Your task to perform on an android device: Clear all items from cart on newegg.com. Add "usb-a to usb-b" to the cart on newegg.com, then select checkout. Image 0: 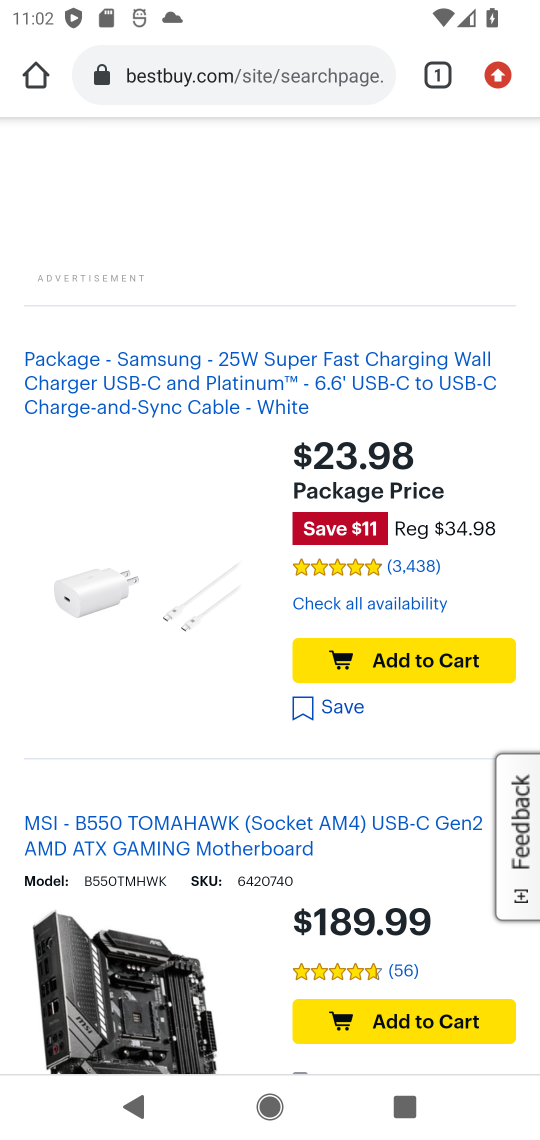
Step 0: click (194, 76)
Your task to perform on an android device: Clear all items from cart on newegg.com. Add "usb-a to usb-b" to the cart on newegg.com, then select checkout. Image 1: 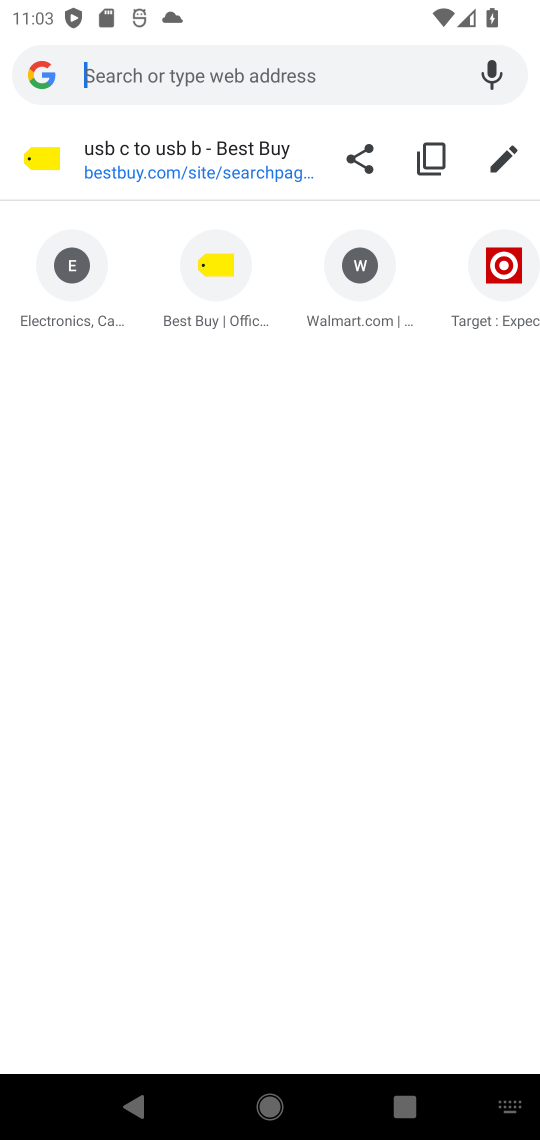
Step 1: type "newegg.com"
Your task to perform on an android device: Clear all items from cart on newegg.com. Add "usb-a to usb-b" to the cart on newegg.com, then select checkout. Image 2: 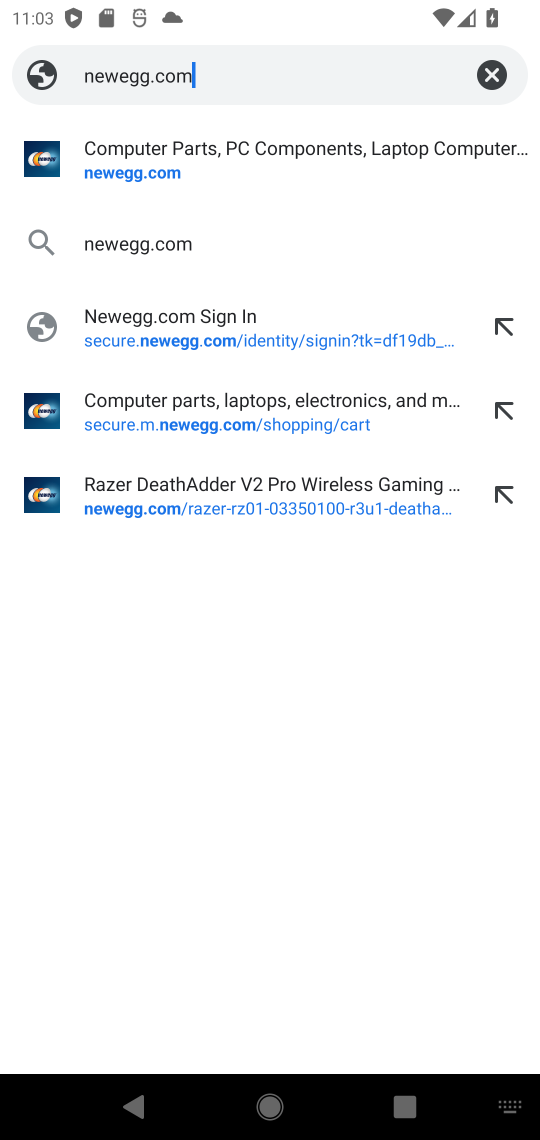
Step 2: click (104, 180)
Your task to perform on an android device: Clear all items from cart on newegg.com. Add "usb-a to usb-b" to the cart on newegg.com, then select checkout. Image 3: 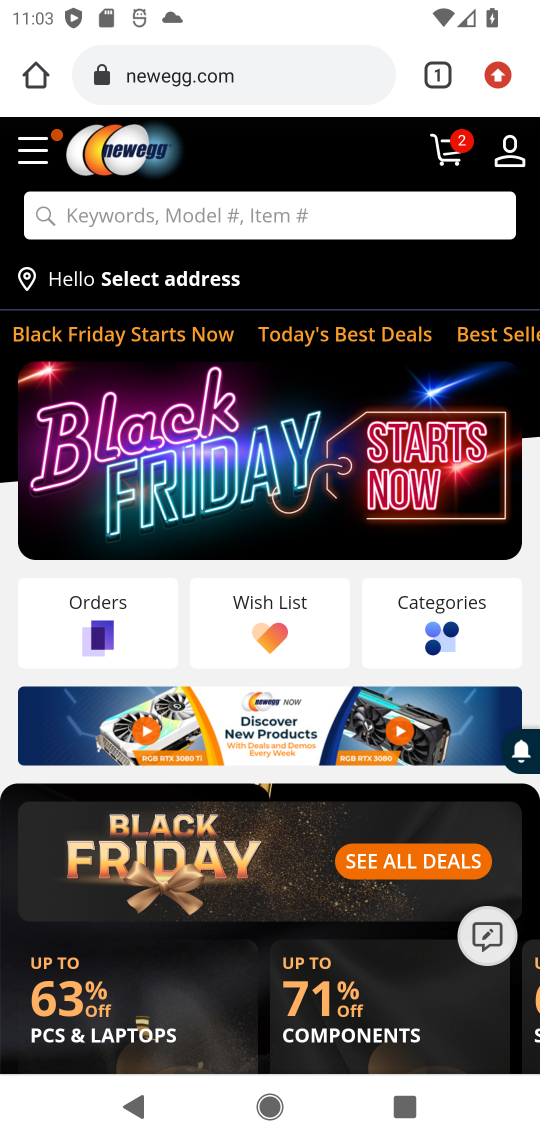
Step 3: click (449, 149)
Your task to perform on an android device: Clear all items from cart on newegg.com. Add "usb-a to usb-b" to the cart on newegg.com, then select checkout. Image 4: 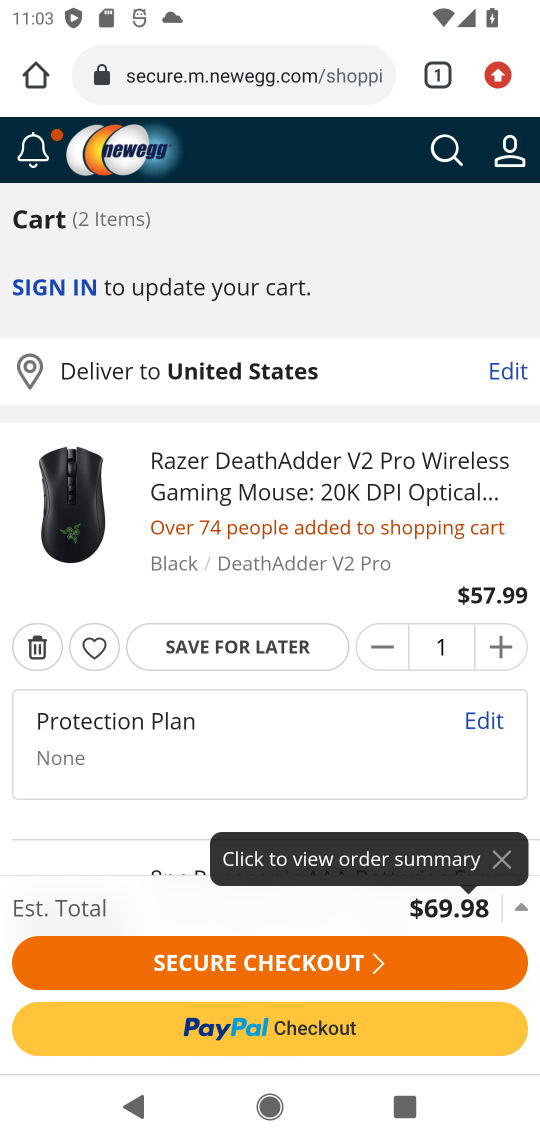
Step 4: click (21, 655)
Your task to perform on an android device: Clear all items from cart on newegg.com. Add "usb-a to usb-b" to the cart on newegg.com, then select checkout. Image 5: 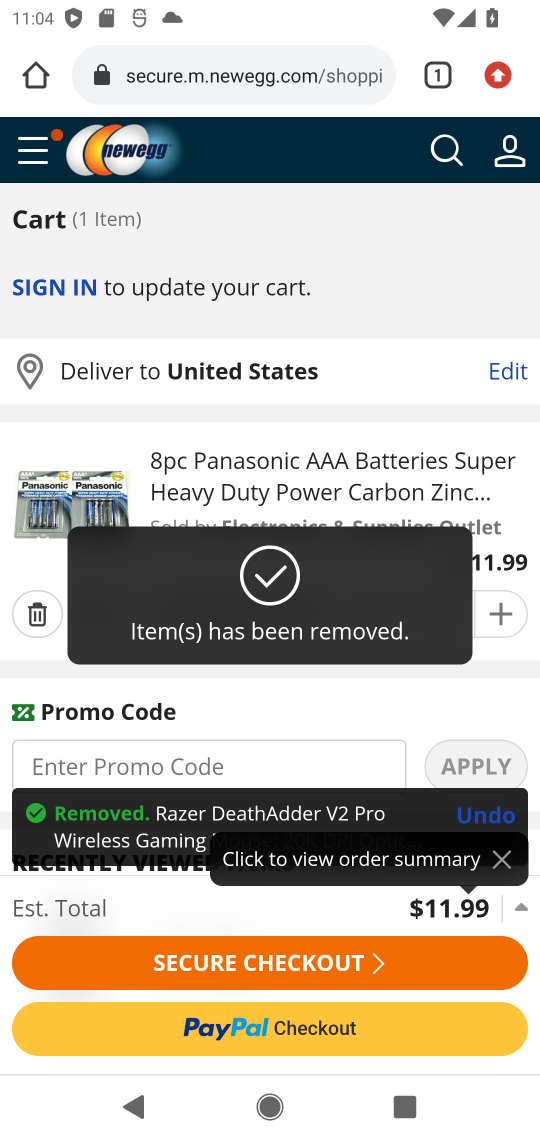
Step 5: click (28, 616)
Your task to perform on an android device: Clear all items from cart on newegg.com. Add "usb-a to usb-b" to the cart on newegg.com, then select checkout. Image 6: 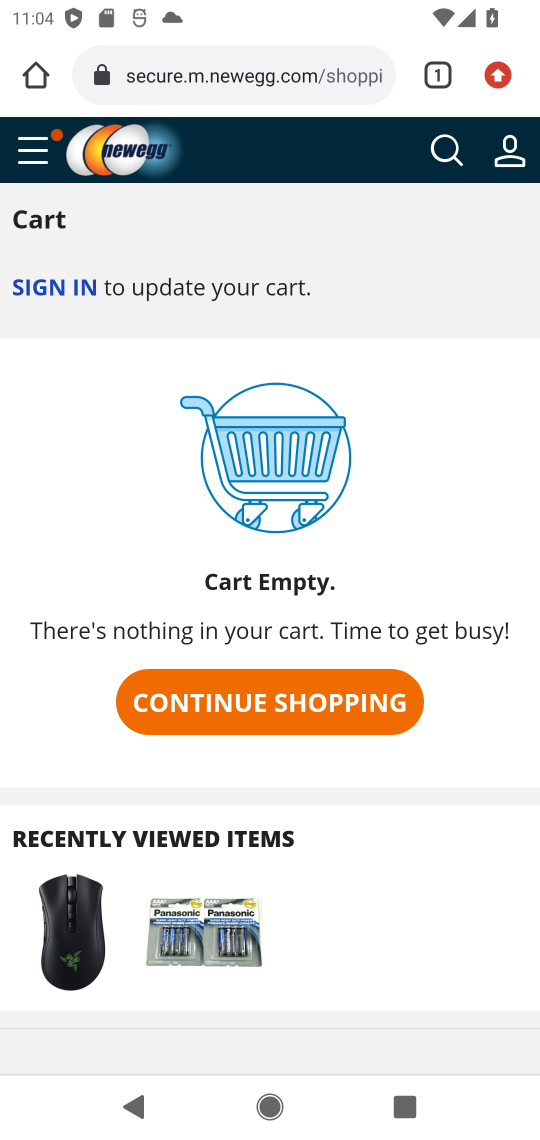
Step 6: click (437, 149)
Your task to perform on an android device: Clear all items from cart on newegg.com. Add "usb-a to usb-b" to the cart on newegg.com, then select checkout. Image 7: 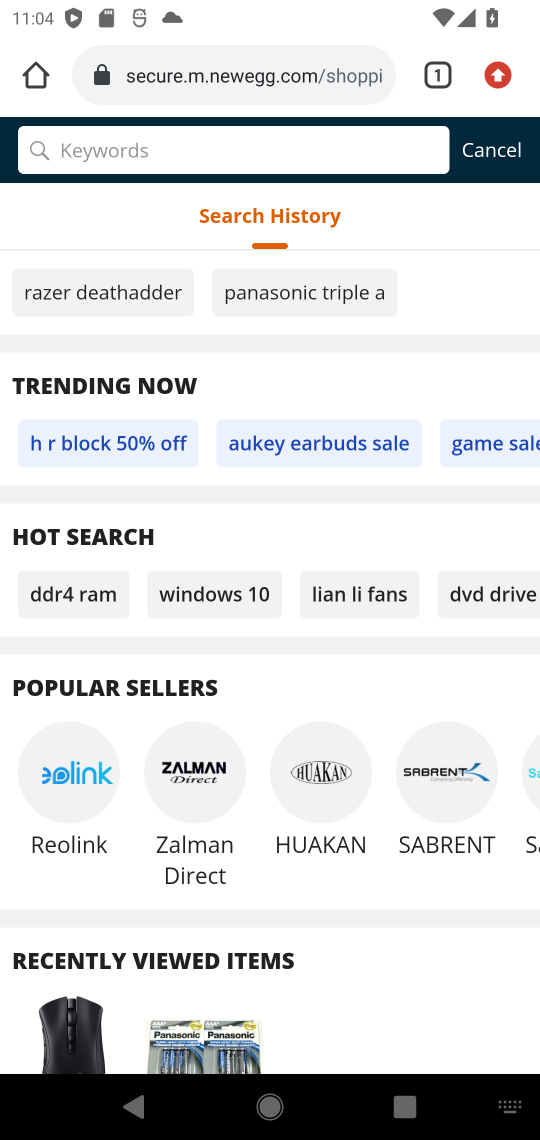
Step 7: type "usb-a to usb-b"
Your task to perform on an android device: Clear all items from cart on newegg.com. Add "usb-a to usb-b" to the cart on newegg.com, then select checkout. Image 8: 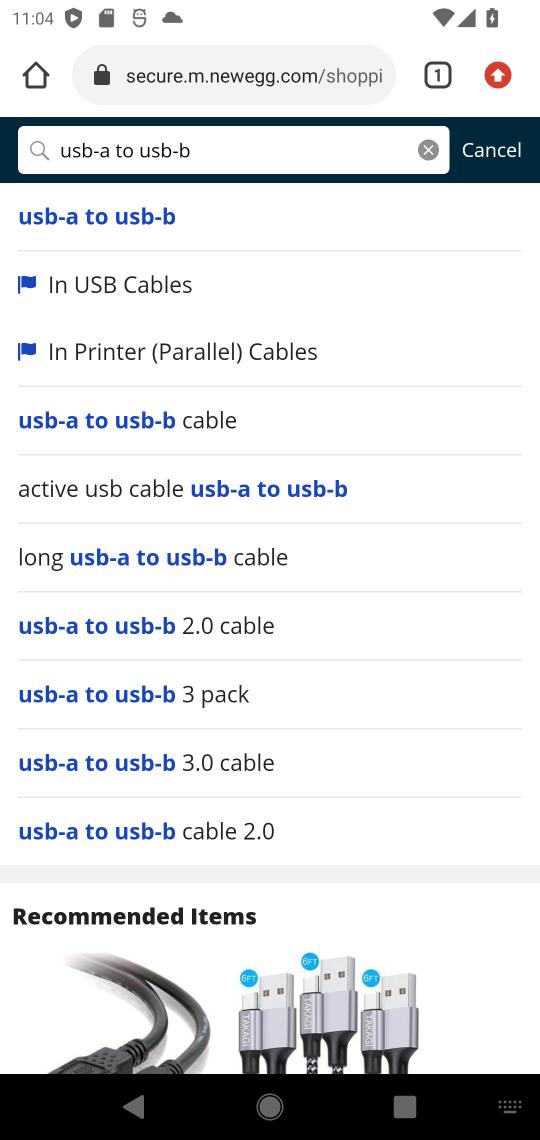
Step 8: click (114, 223)
Your task to perform on an android device: Clear all items from cart on newegg.com. Add "usb-a to usb-b" to the cart on newegg.com, then select checkout. Image 9: 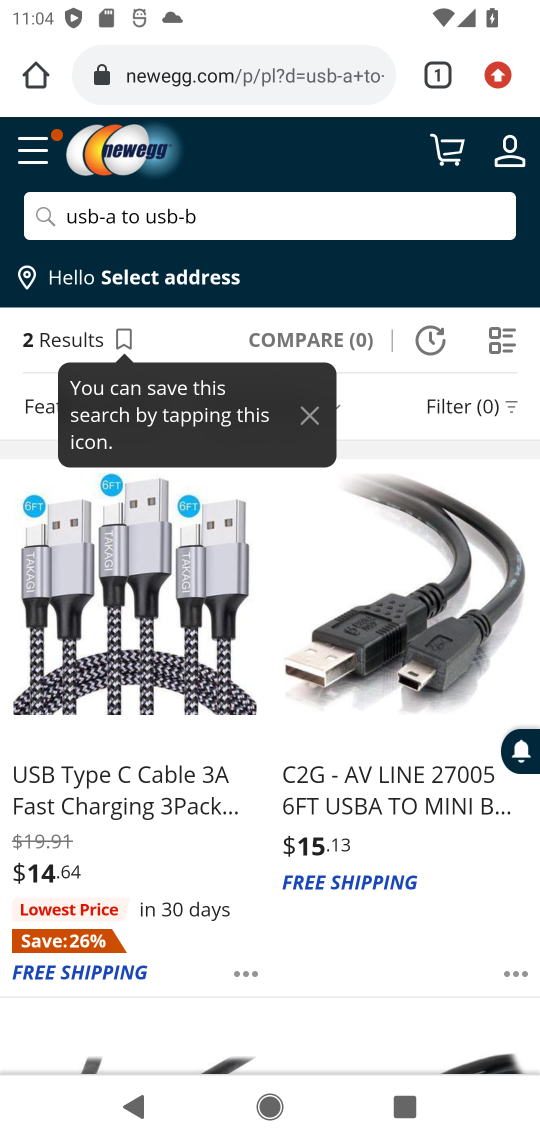
Step 9: drag from (139, 674) to (170, 497)
Your task to perform on an android device: Clear all items from cart on newegg.com. Add "usb-a to usb-b" to the cart on newegg.com, then select checkout. Image 10: 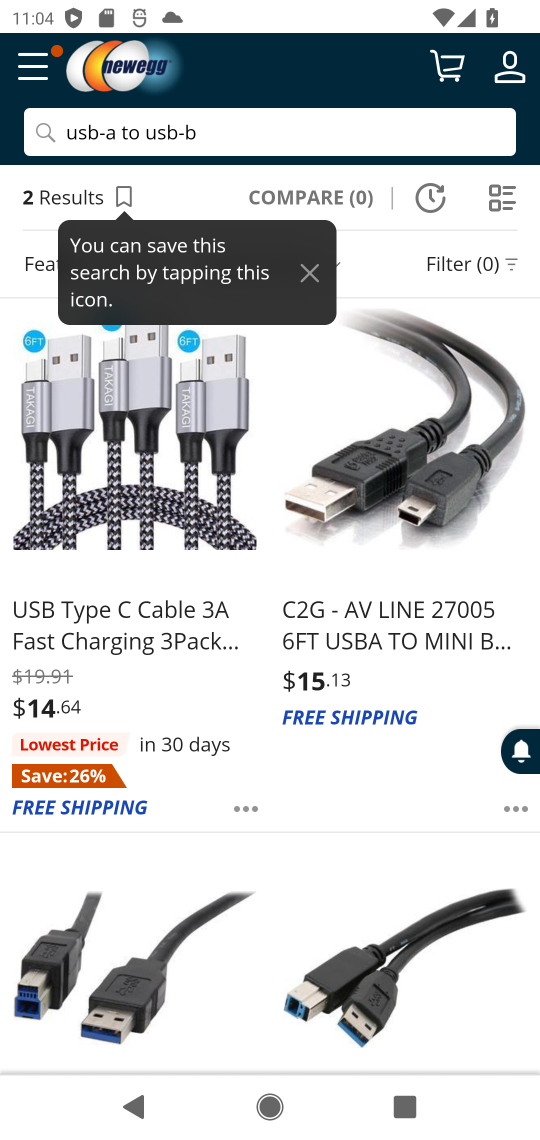
Step 10: drag from (140, 686) to (123, 475)
Your task to perform on an android device: Clear all items from cart on newegg.com. Add "usb-a to usb-b" to the cart on newegg.com, then select checkout. Image 11: 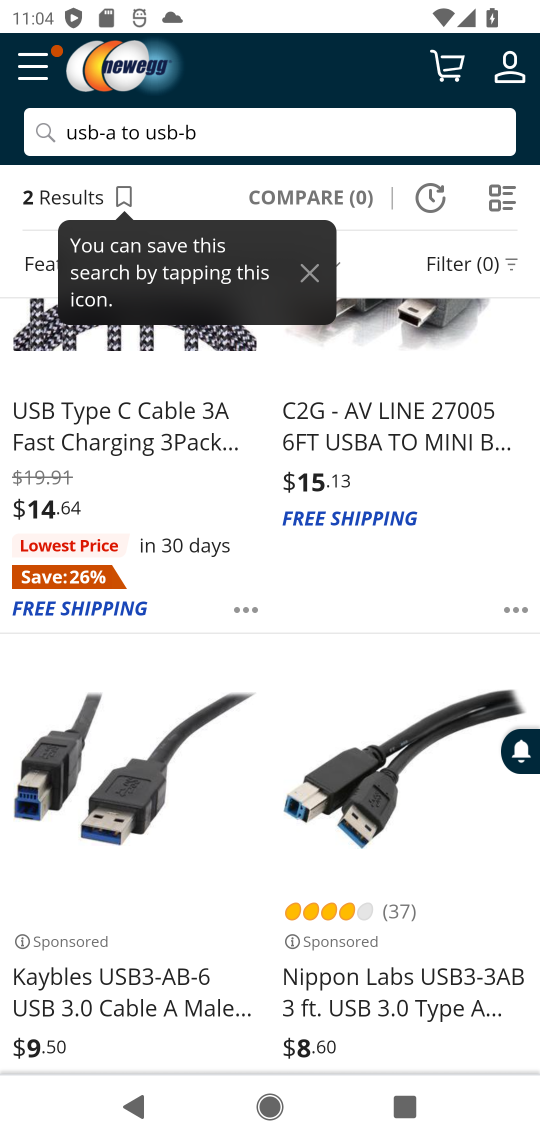
Step 11: drag from (110, 769) to (124, 552)
Your task to perform on an android device: Clear all items from cart on newegg.com. Add "usb-a to usb-b" to the cart on newegg.com, then select checkout. Image 12: 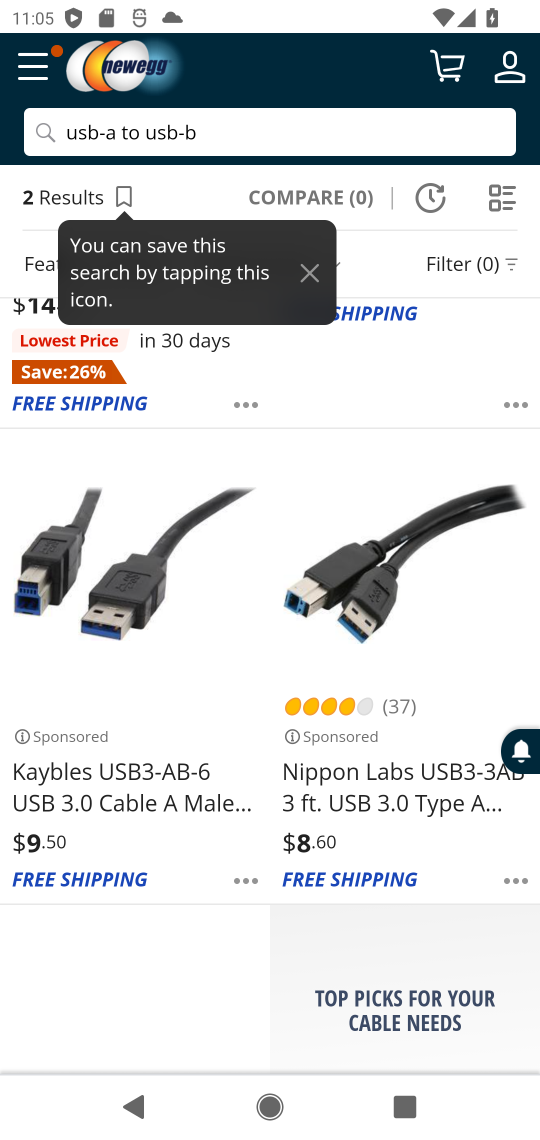
Step 12: drag from (149, 966) to (144, 574)
Your task to perform on an android device: Clear all items from cart on newegg.com. Add "usb-a to usb-b" to the cart on newegg.com, then select checkout. Image 13: 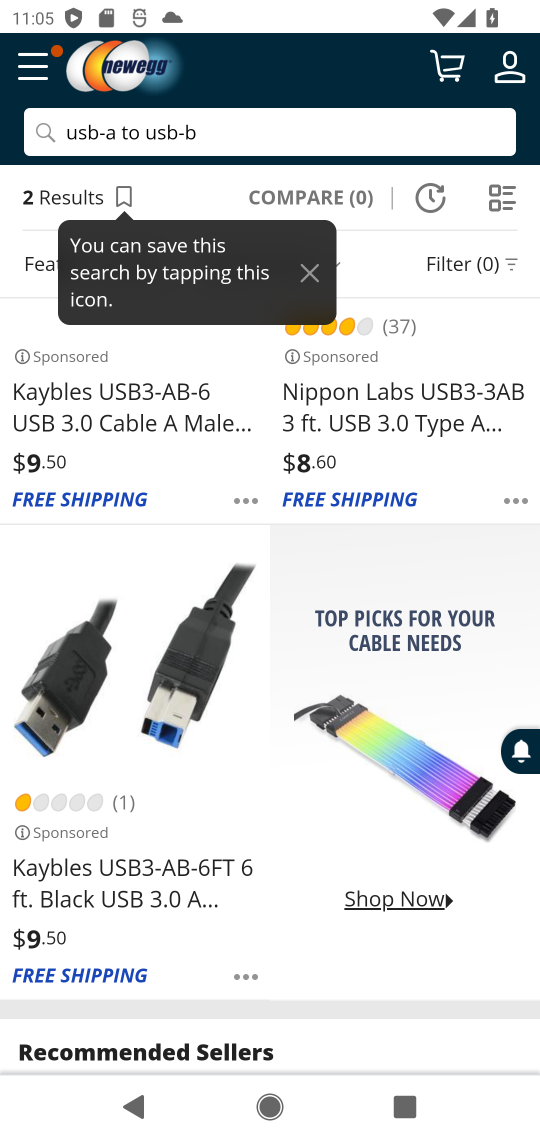
Step 13: drag from (144, 581) to (113, 996)
Your task to perform on an android device: Clear all items from cart on newegg.com. Add "usb-a to usb-b" to the cart on newegg.com, then select checkout. Image 14: 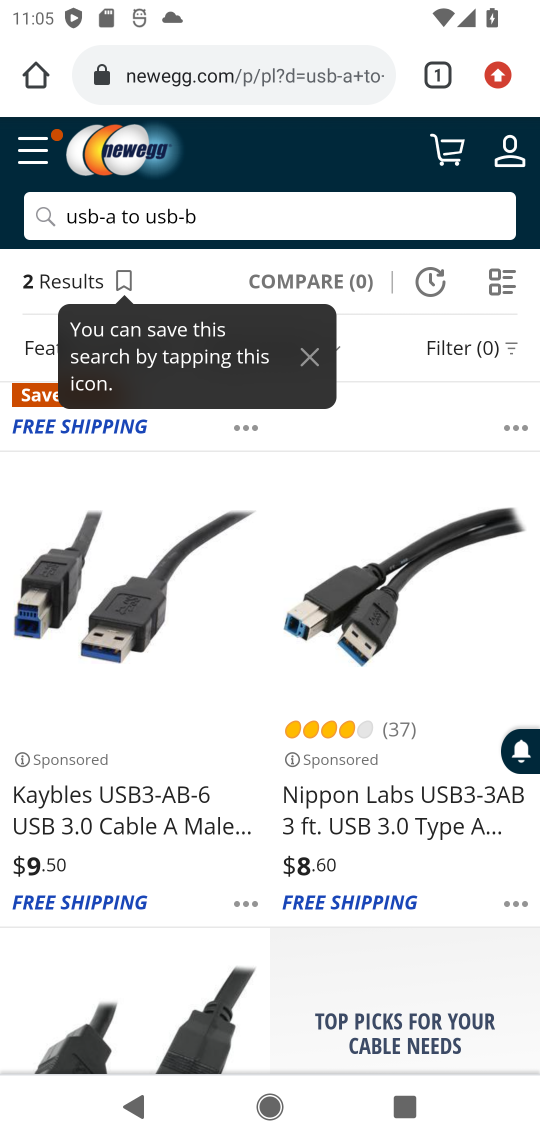
Step 14: drag from (133, 610) to (114, 925)
Your task to perform on an android device: Clear all items from cart on newegg.com. Add "usb-a to usb-b" to the cart on newegg.com, then select checkout. Image 15: 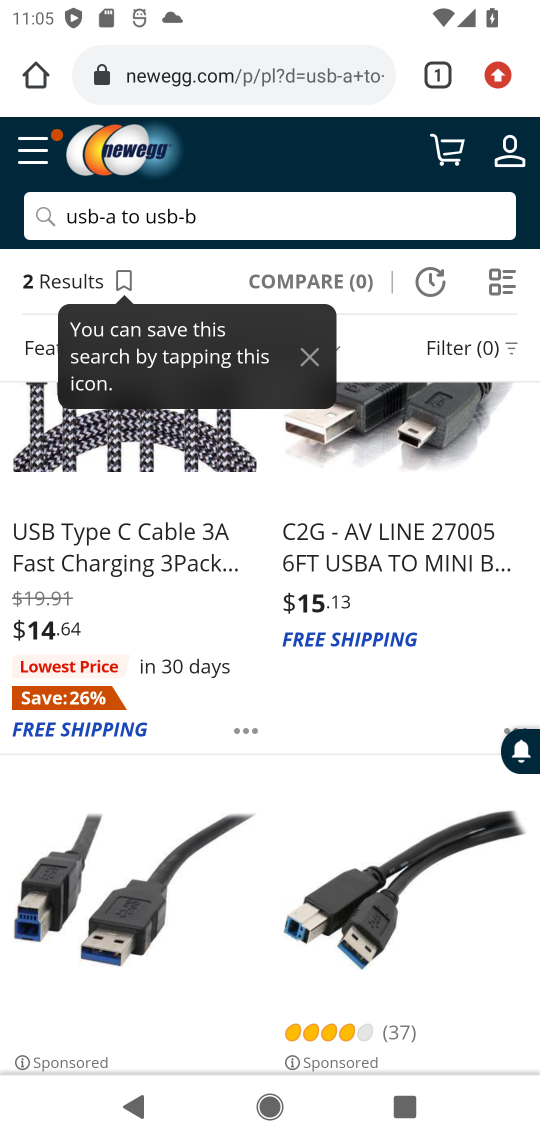
Step 15: click (409, 571)
Your task to perform on an android device: Clear all items from cart on newegg.com. Add "usb-a to usb-b" to the cart on newegg.com, then select checkout. Image 16: 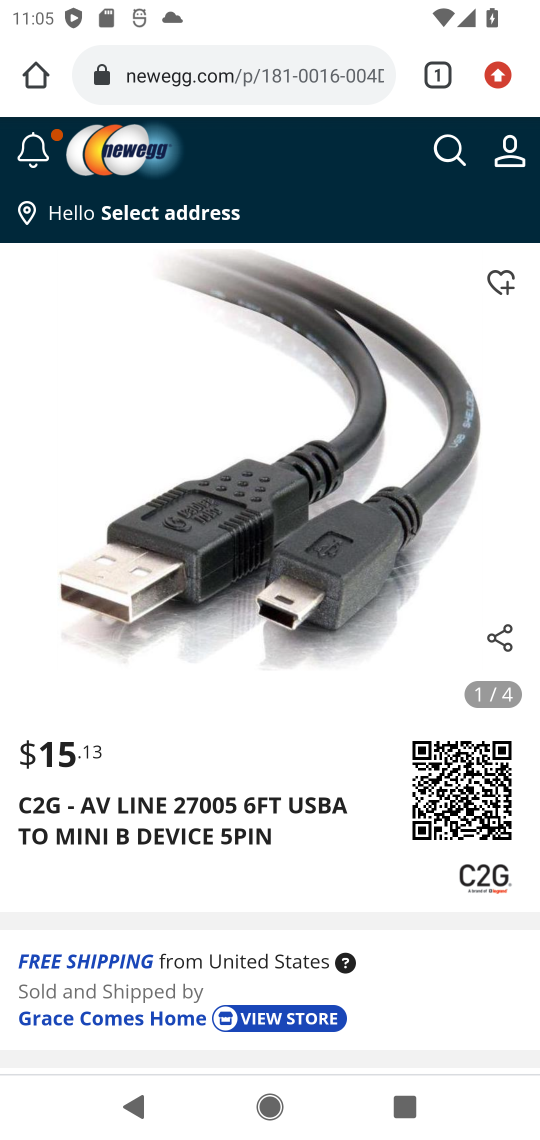
Step 16: drag from (158, 851) to (163, 701)
Your task to perform on an android device: Clear all items from cart on newegg.com. Add "usb-a to usb-b" to the cart on newegg.com, then select checkout. Image 17: 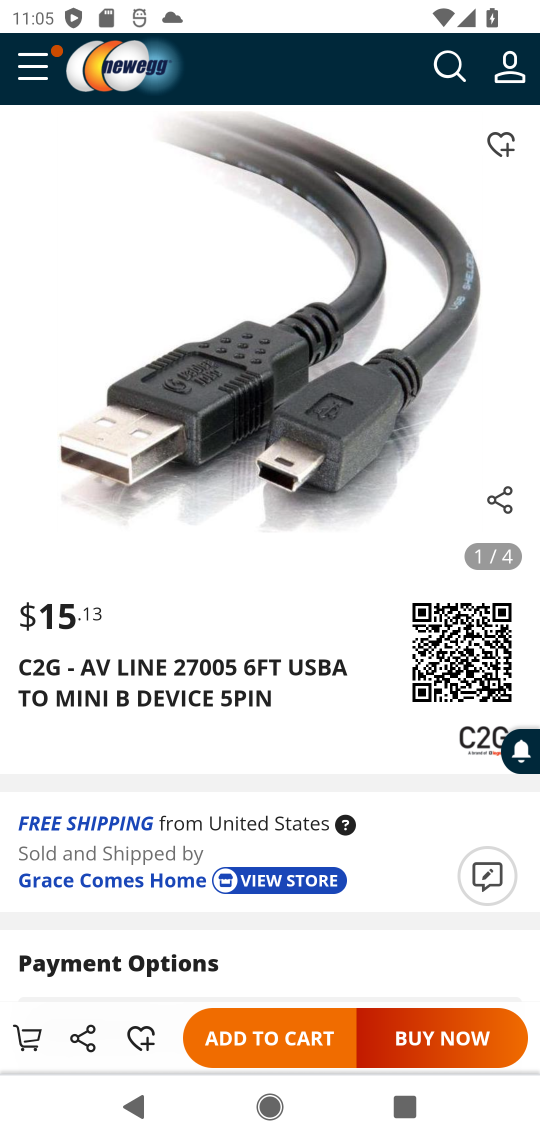
Step 17: drag from (145, 793) to (174, 553)
Your task to perform on an android device: Clear all items from cart on newegg.com. Add "usb-a to usb-b" to the cart on newegg.com, then select checkout. Image 18: 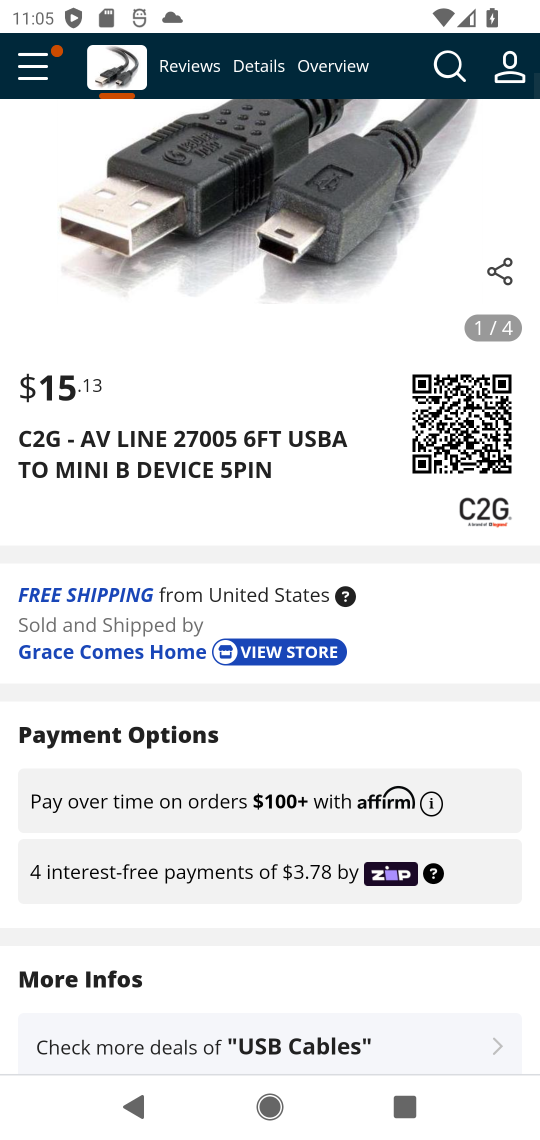
Step 18: click (275, 1030)
Your task to perform on an android device: Clear all items from cart on newegg.com. Add "usb-a to usb-b" to the cart on newegg.com, then select checkout. Image 19: 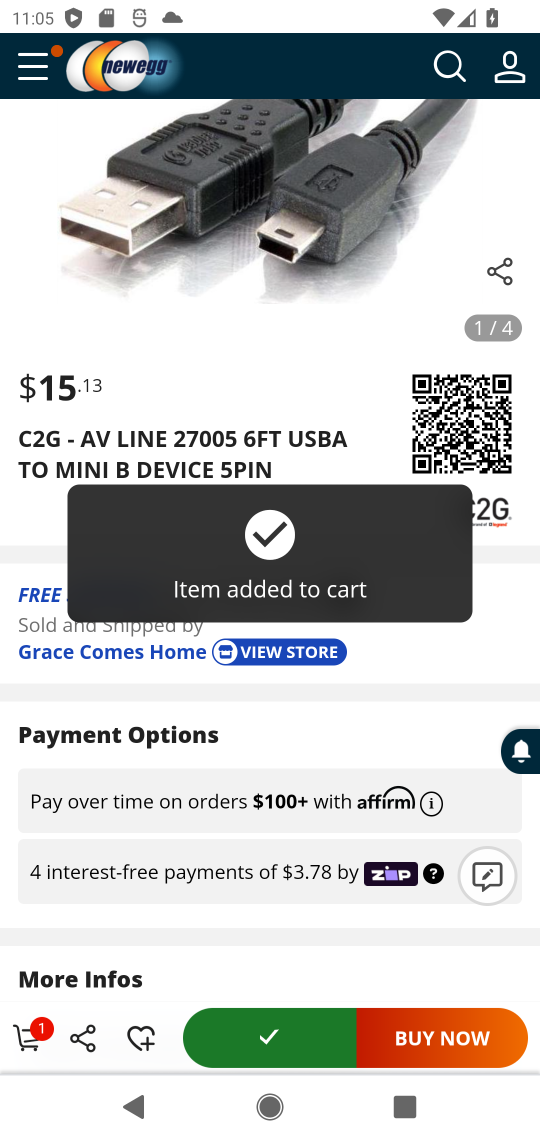
Step 19: click (31, 1034)
Your task to perform on an android device: Clear all items from cart on newegg.com. Add "usb-a to usb-b" to the cart on newegg.com, then select checkout. Image 20: 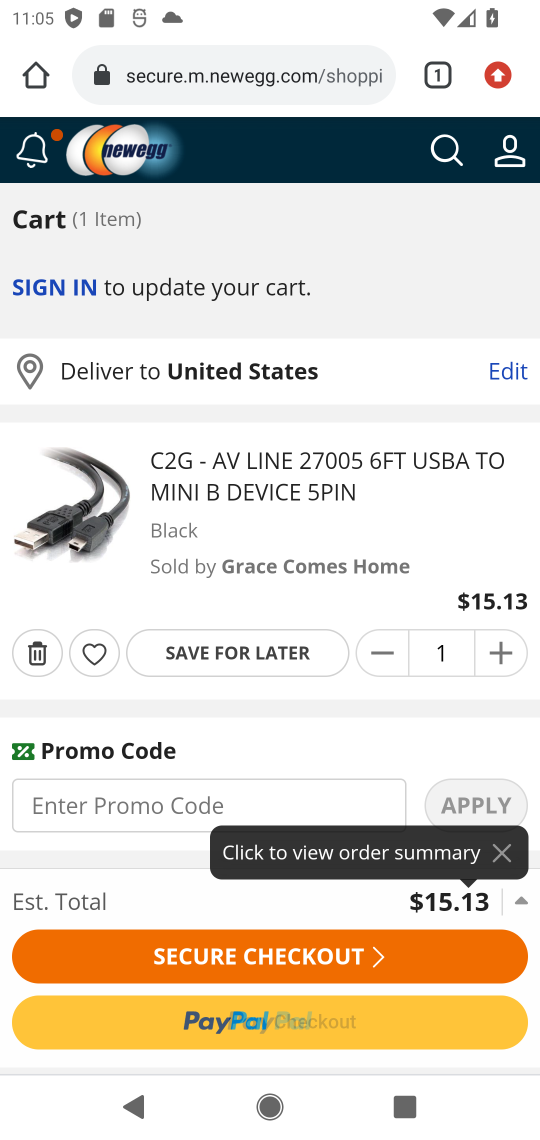
Step 20: click (251, 953)
Your task to perform on an android device: Clear all items from cart on newegg.com. Add "usb-a to usb-b" to the cart on newegg.com, then select checkout. Image 21: 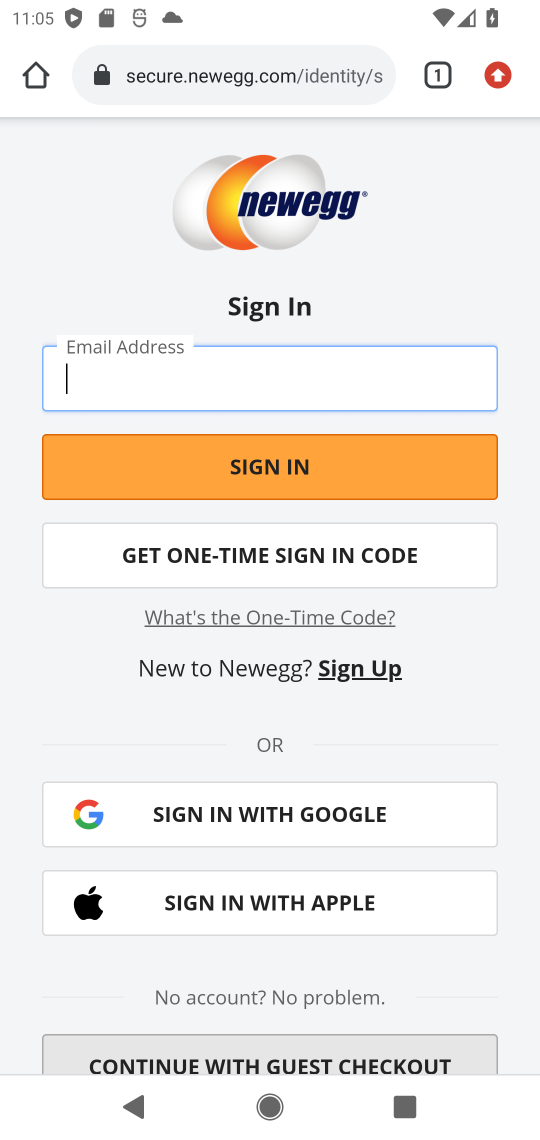
Step 21: task complete